Your task to perform on an android device: Go to Wikipedia Image 0: 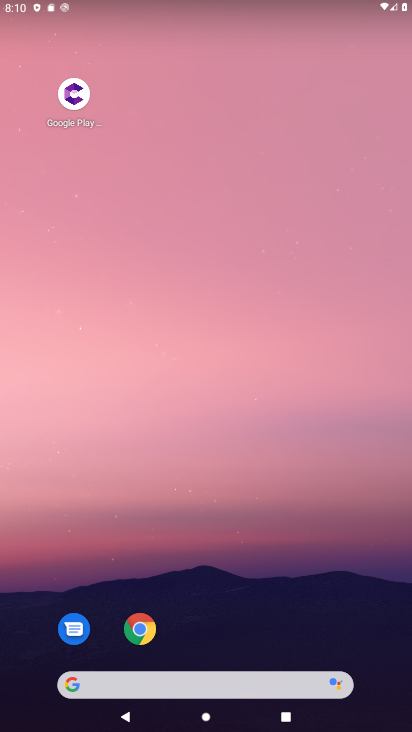
Step 0: click (136, 631)
Your task to perform on an android device: Go to Wikipedia Image 1: 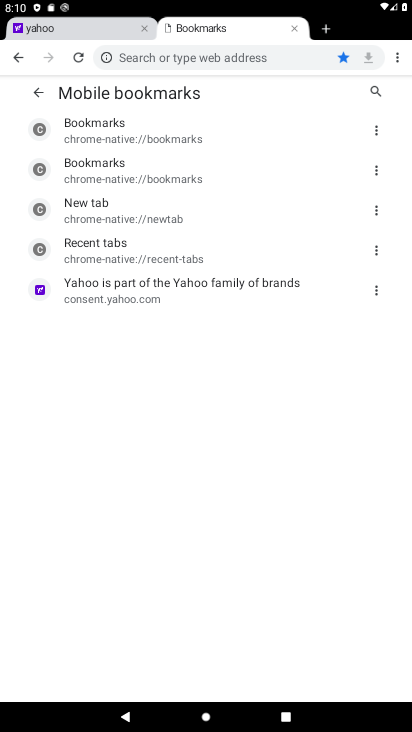
Step 1: click (189, 56)
Your task to perform on an android device: Go to Wikipedia Image 2: 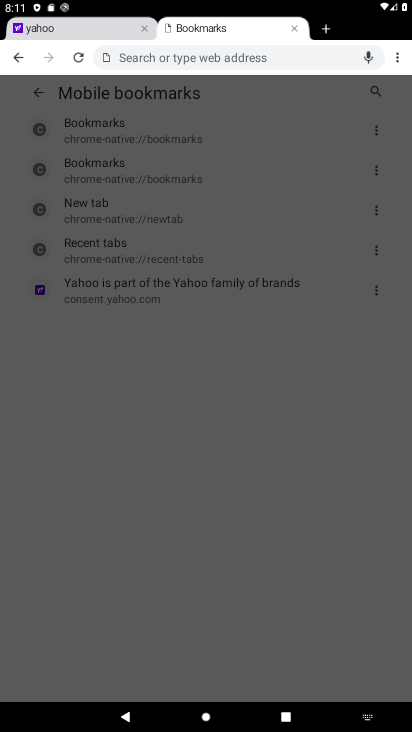
Step 2: type "wikipedia"
Your task to perform on an android device: Go to Wikipedia Image 3: 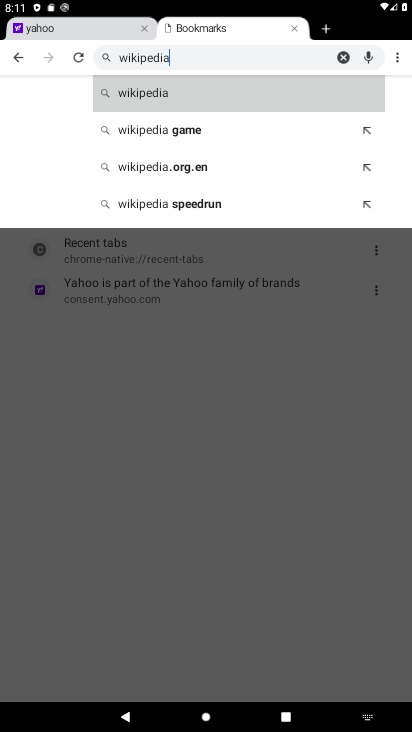
Step 3: click (165, 88)
Your task to perform on an android device: Go to Wikipedia Image 4: 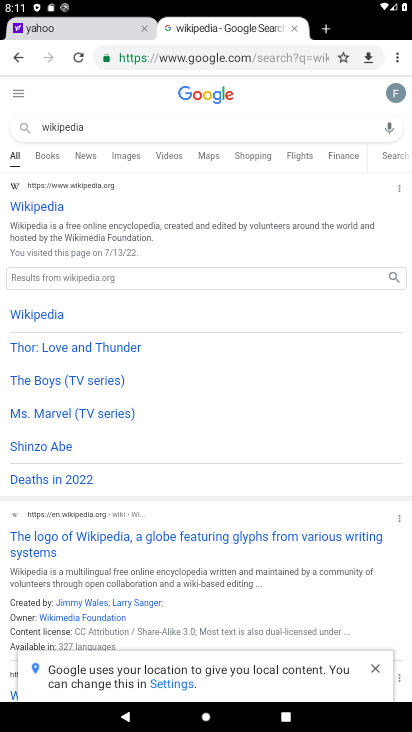
Step 4: task complete